Your task to perform on an android device: Open internet settings Image 0: 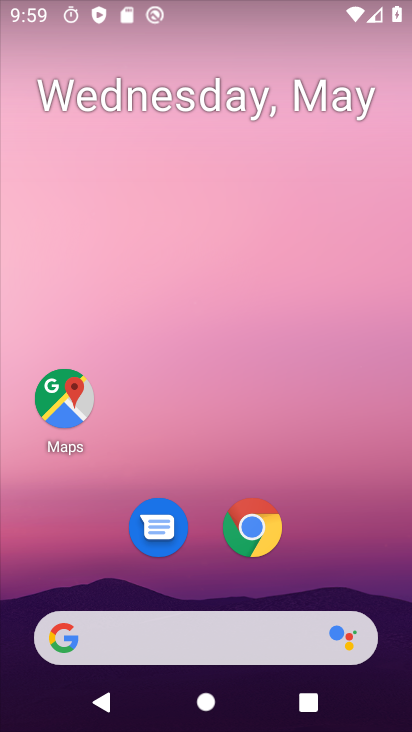
Step 0: click (297, 411)
Your task to perform on an android device: Open internet settings Image 1: 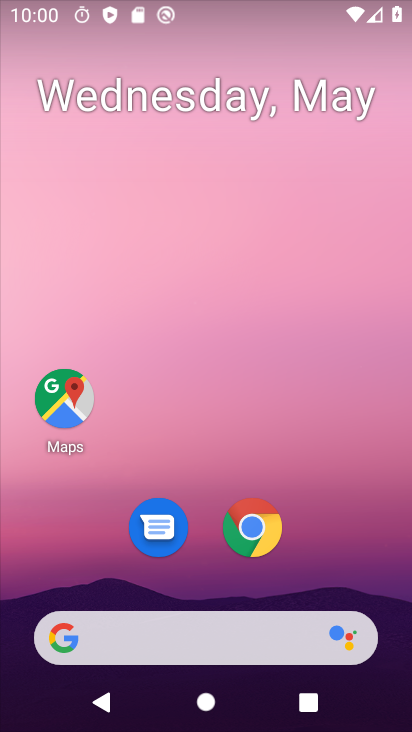
Step 1: drag from (310, 489) to (325, 34)
Your task to perform on an android device: Open internet settings Image 2: 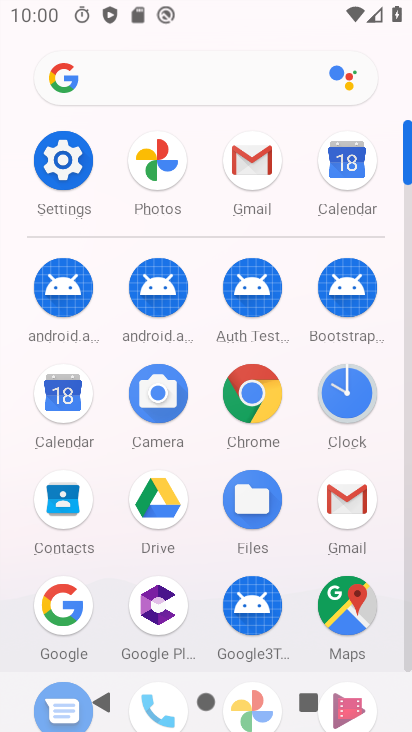
Step 2: click (55, 144)
Your task to perform on an android device: Open internet settings Image 3: 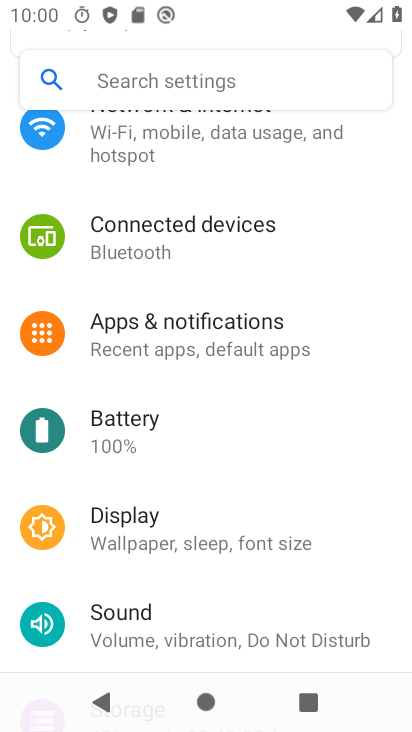
Step 3: drag from (229, 139) to (182, 252)
Your task to perform on an android device: Open internet settings Image 4: 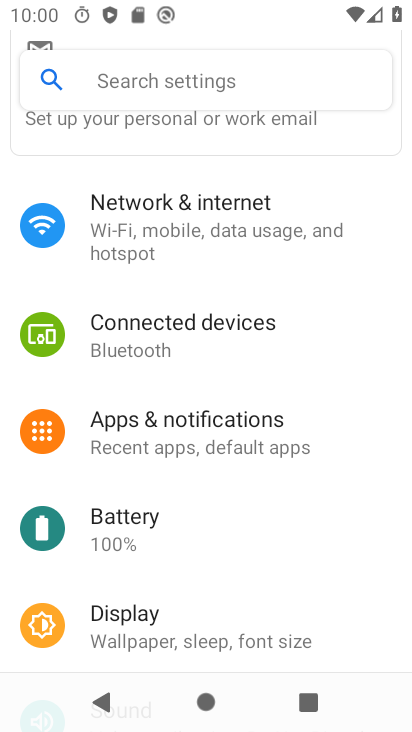
Step 4: click (209, 207)
Your task to perform on an android device: Open internet settings Image 5: 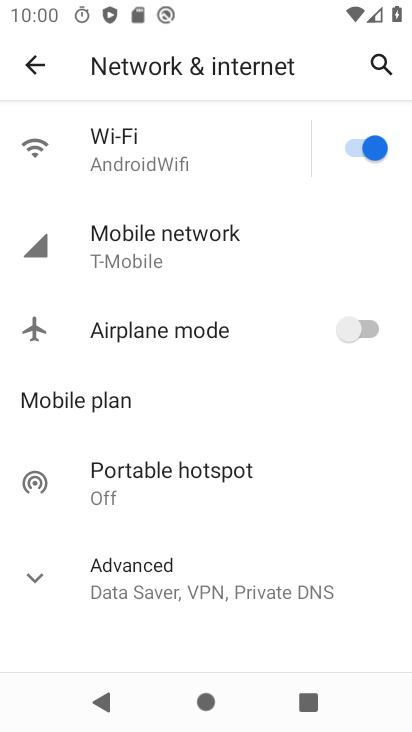
Step 5: task complete